Your task to perform on an android device: Open Google Image 0: 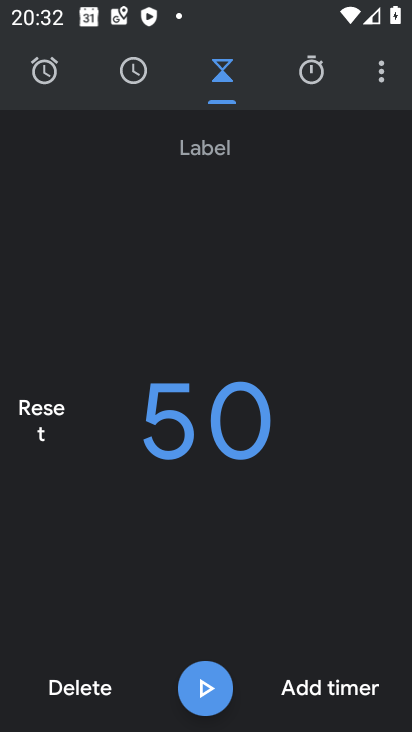
Step 0: press home button
Your task to perform on an android device: Open Google Image 1: 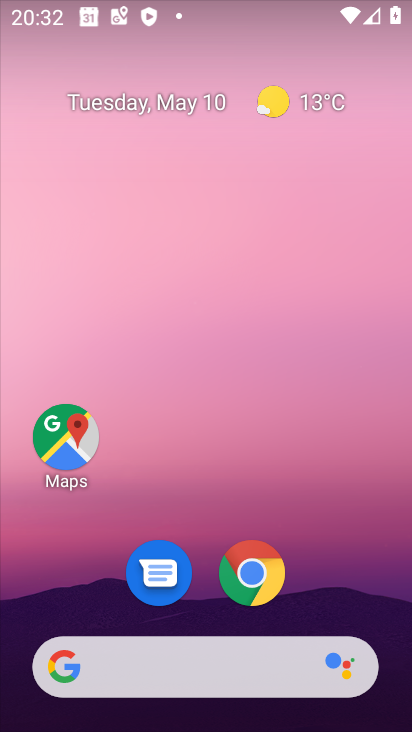
Step 1: drag from (343, 597) to (330, 10)
Your task to perform on an android device: Open Google Image 2: 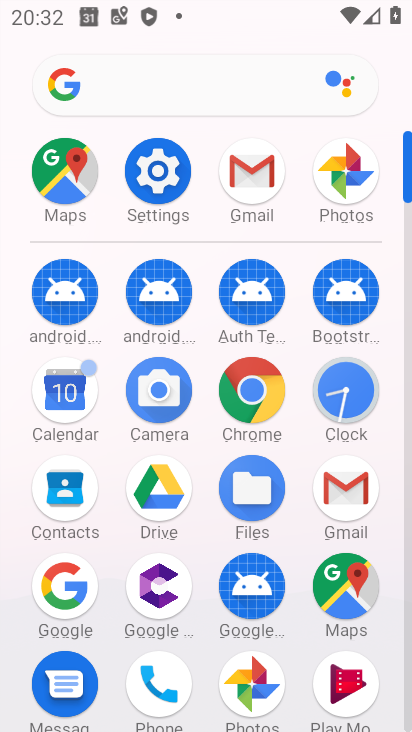
Step 2: click (69, 594)
Your task to perform on an android device: Open Google Image 3: 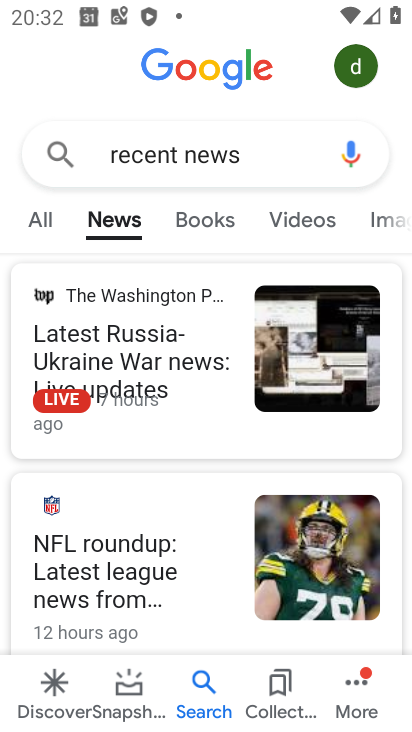
Step 3: task complete